Your task to perform on an android device: Go to Maps Image 0: 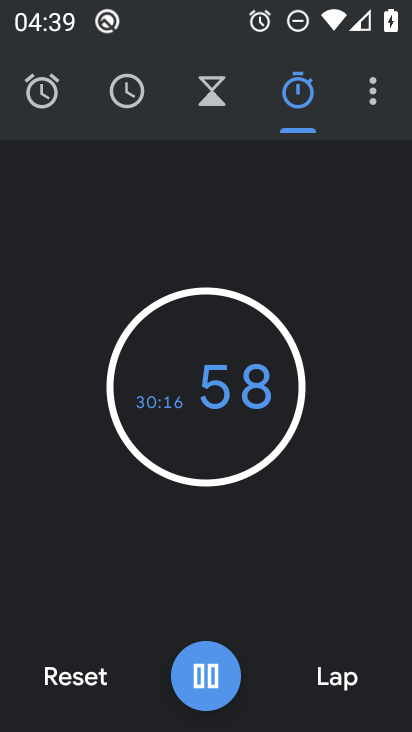
Step 0: press home button
Your task to perform on an android device: Go to Maps Image 1: 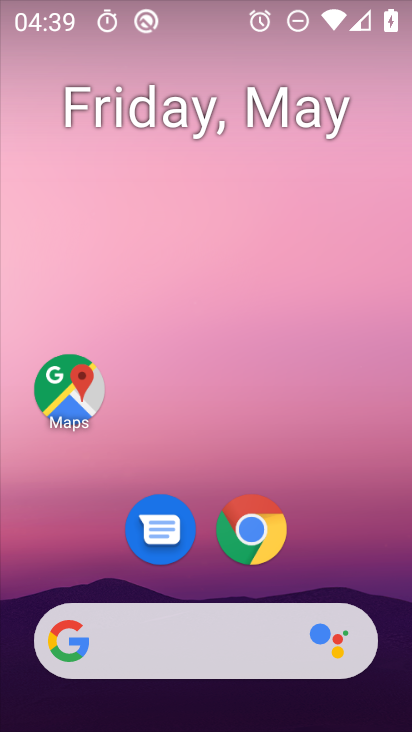
Step 1: click (68, 386)
Your task to perform on an android device: Go to Maps Image 2: 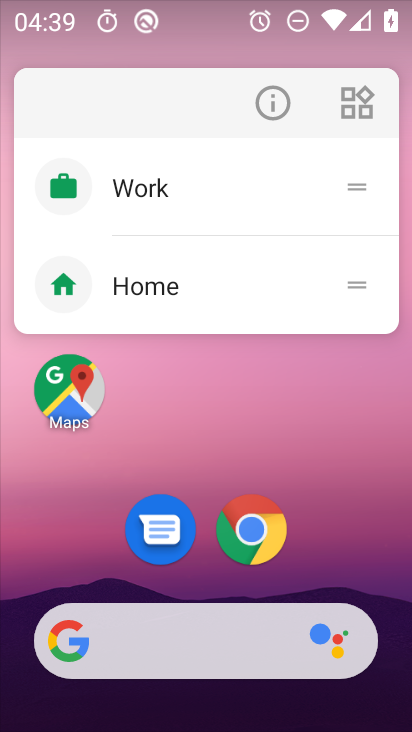
Step 2: click (68, 386)
Your task to perform on an android device: Go to Maps Image 3: 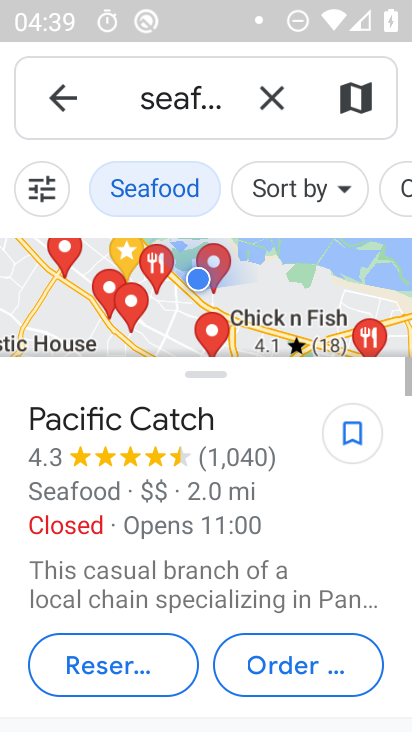
Step 3: task complete